Your task to perform on an android device: clear history in the chrome app Image 0: 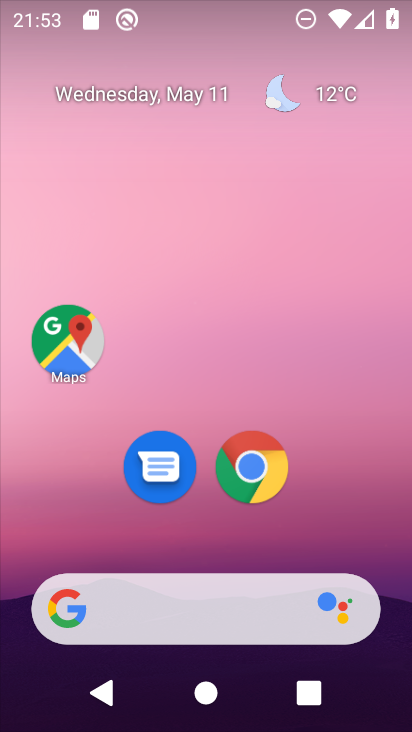
Step 0: click (249, 465)
Your task to perform on an android device: clear history in the chrome app Image 1: 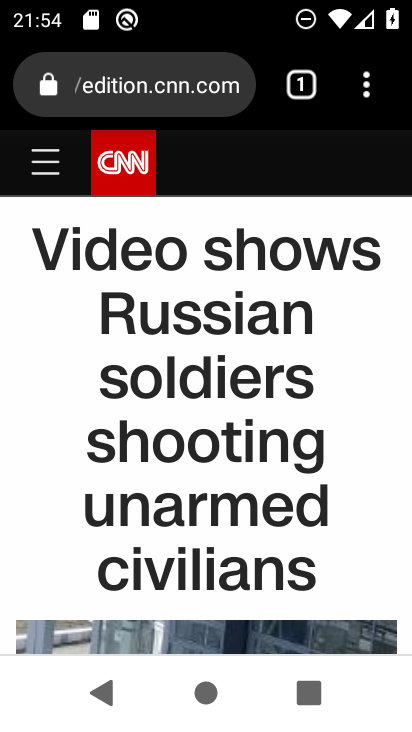
Step 1: click (370, 82)
Your task to perform on an android device: clear history in the chrome app Image 2: 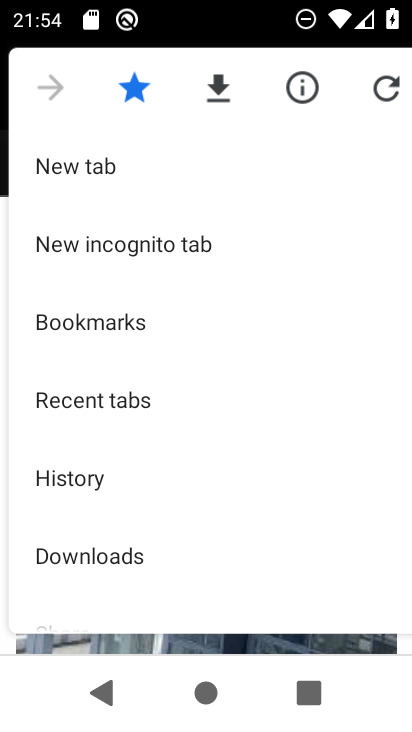
Step 2: click (118, 475)
Your task to perform on an android device: clear history in the chrome app Image 3: 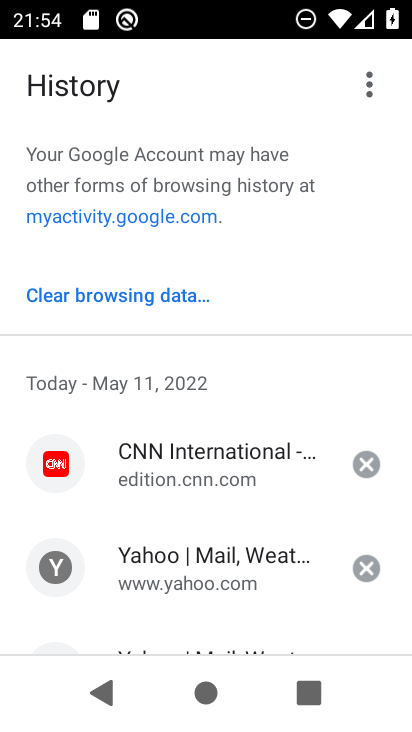
Step 3: click (112, 298)
Your task to perform on an android device: clear history in the chrome app Image 4: 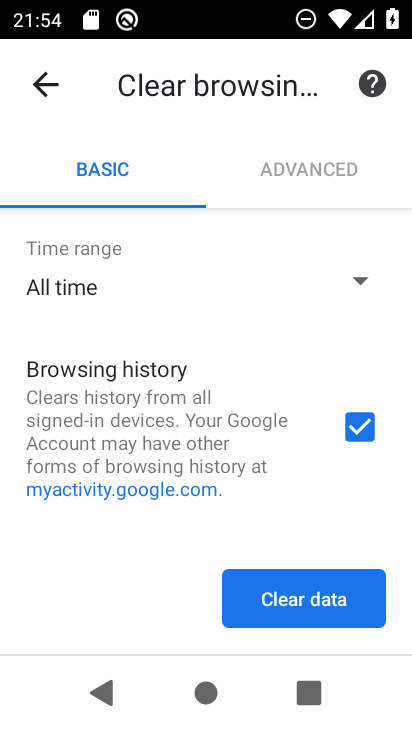
Step 4: drag from (248, 429) to (236, 156)
Your task to perform on an android device: clear history in the chrome app Image 5: 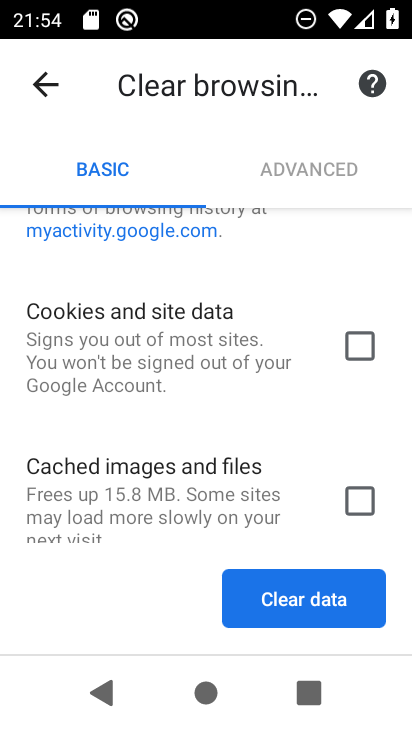
Step 5: click (361, 337)
Your task to perform on an android device: clear history in the chrome app Image 6: 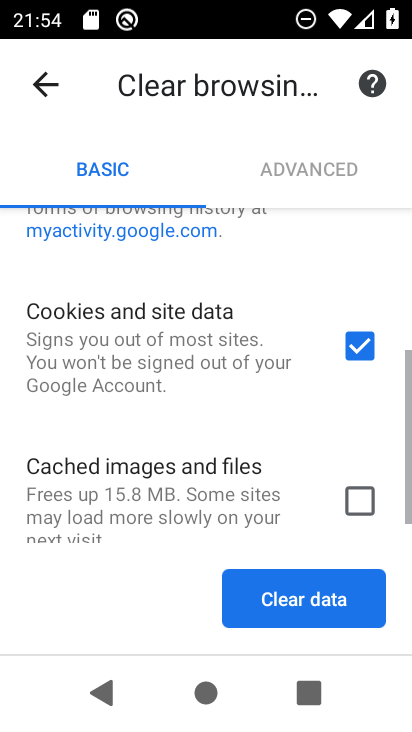
Step 6: click (353, 484)
Your task to perform on an android device: clear history in the chrome app Image 7: 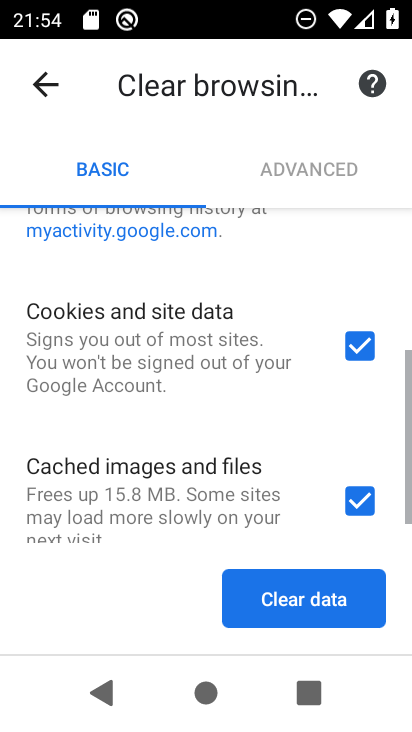
Step 7: click (307, 607)
Your task to perform on an android device: clear history in the chrome app Image 8: 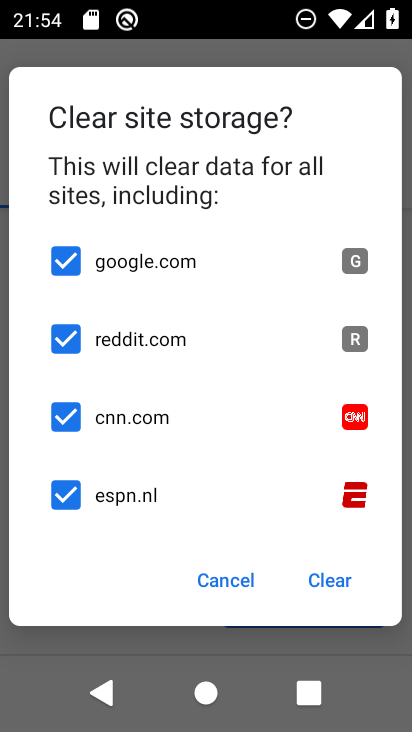
Step 8: task complete